Your task to perform on an android device: Search for Italian restaurants on Maps Image 0: 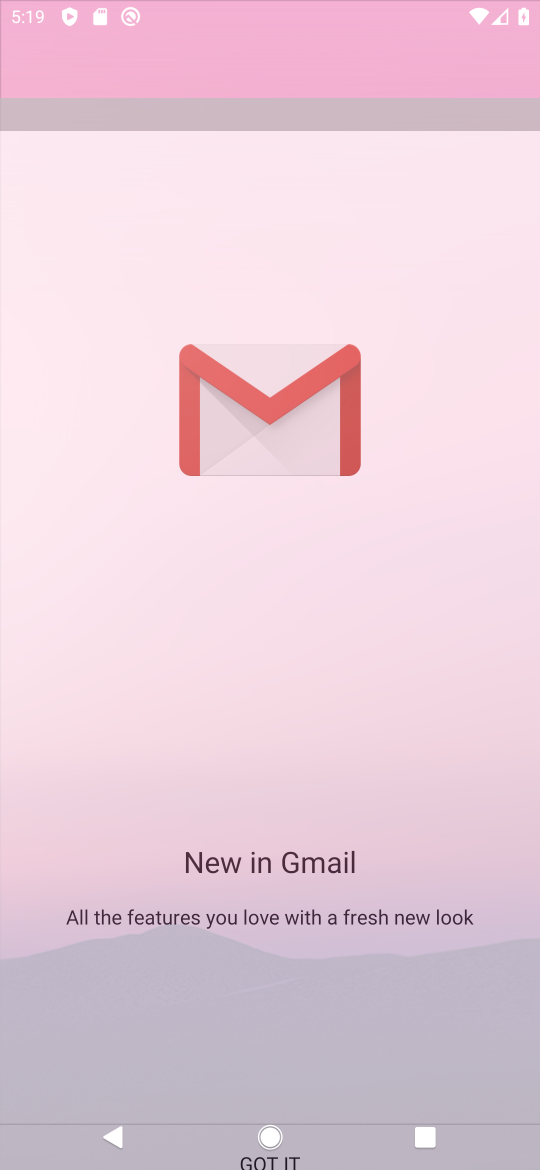
Step 0: press home button
Your task to perform on an android device: Search for Italian restaurants on Maps Image 1: 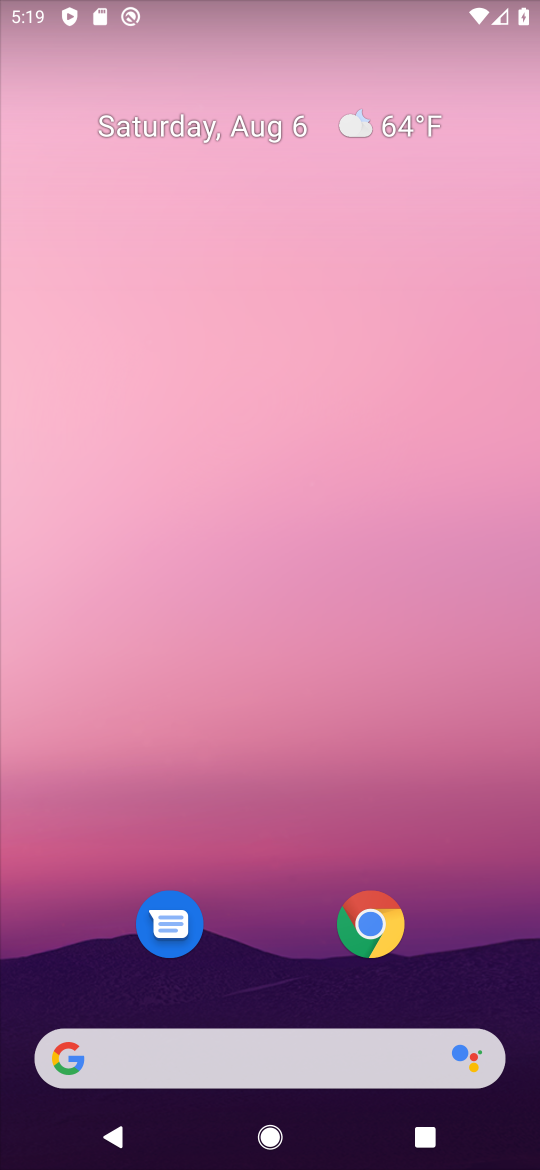
Step 1: drag from (282, 867) to (321, 140)
Your task to perform on an android device: Search for Italian restaurants on Maps Image 2: 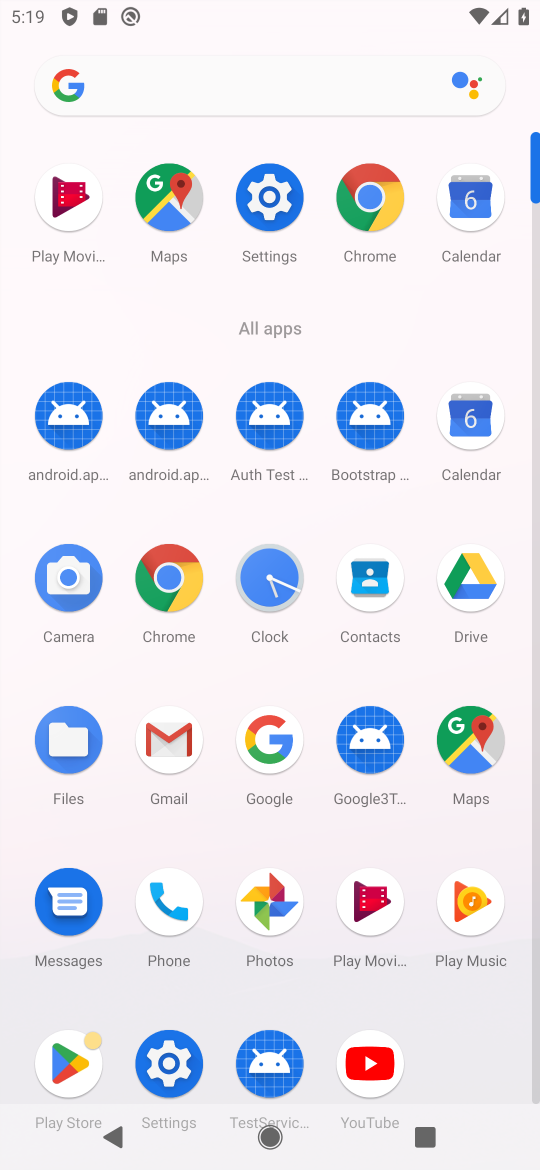
Step 2: click (172, 196)
Your task to perform on an android device: Search for Italian restaurants on Maps Image 3: 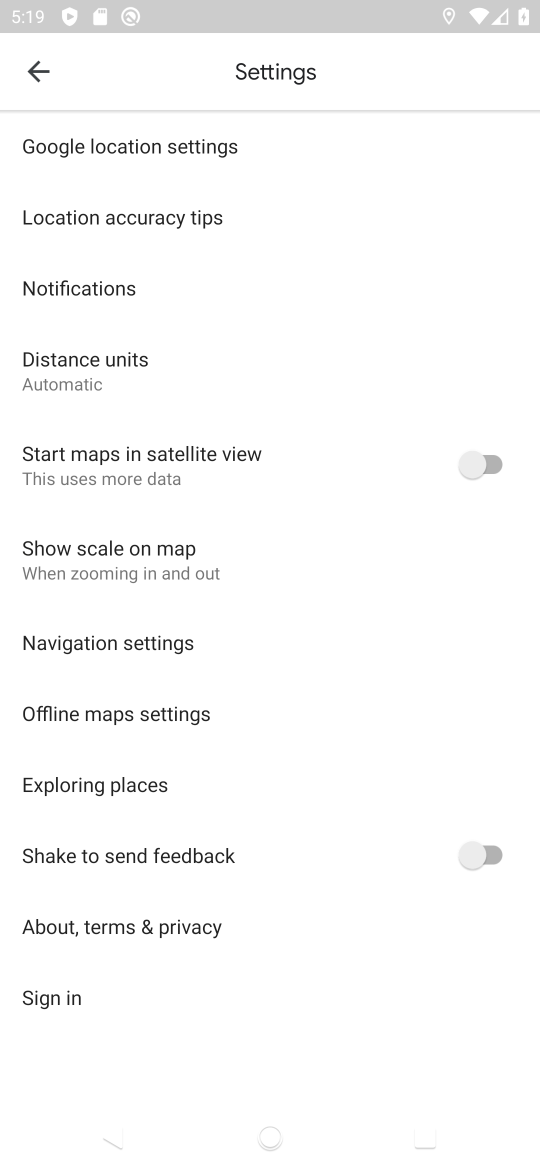
Step 3: click (35, 68)
Your task to perform on an android device: Search for Italian restaurants on Maps Image 4: 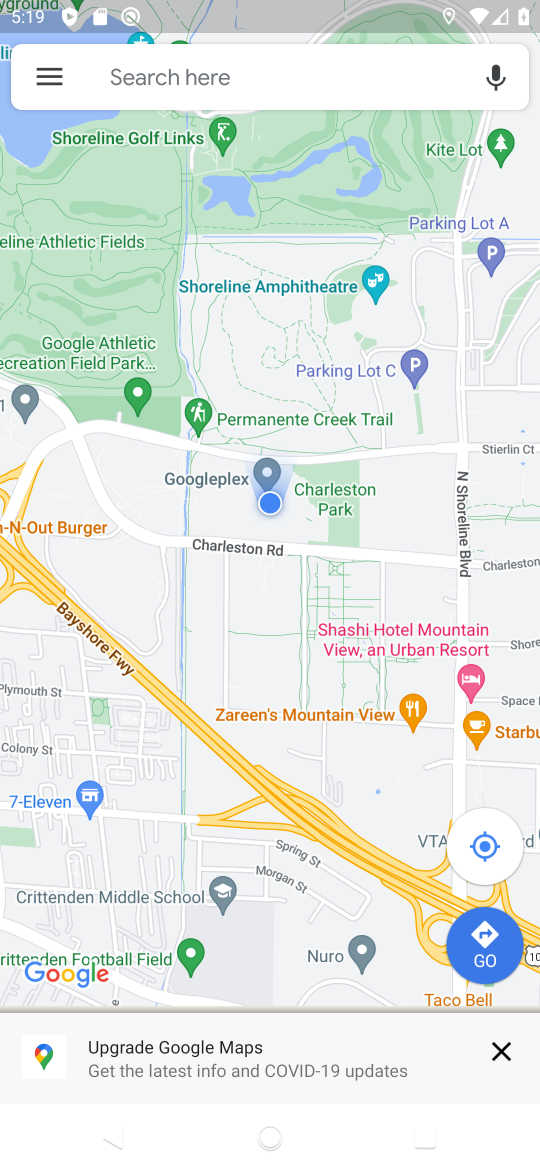
Step 4: click (194, 75)
Your task to perform on an android device: Search for Italian restaurants on Maps Image 5: 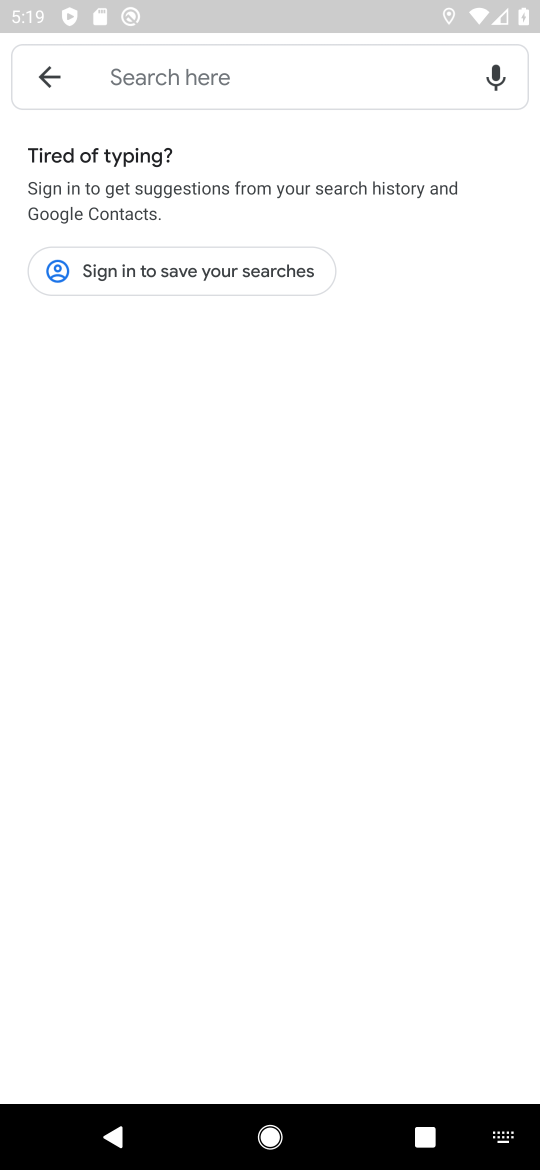
Step 5: type "italian"
Your task to perform on an android device: Search for Italian restaurants on Maps Image 6: 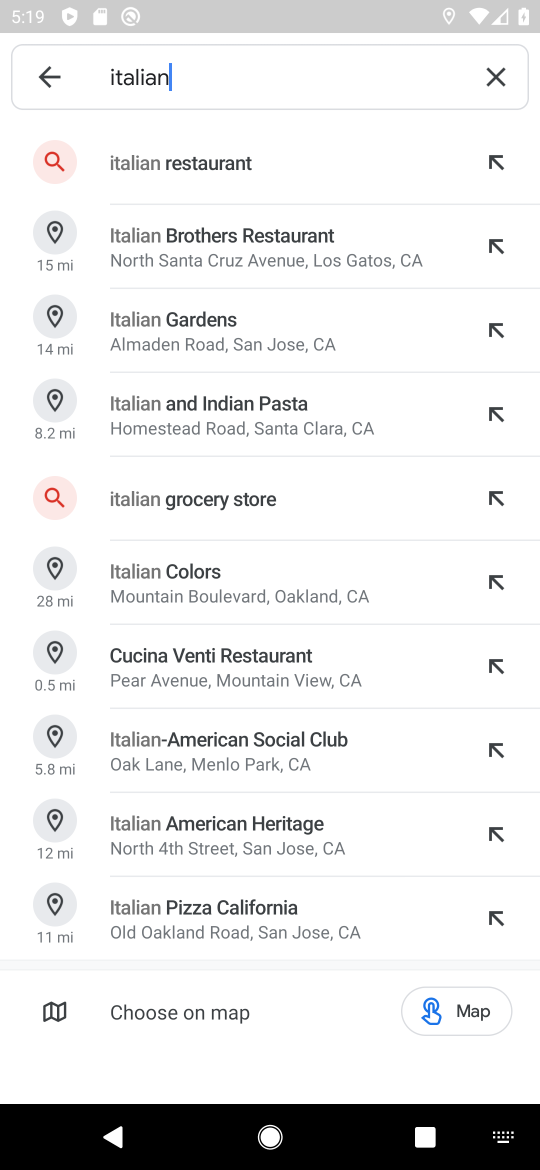
Step 6: click (186, 155)
Your task to perform on an android device: Search for Italian restaurants on Maps Image 7: 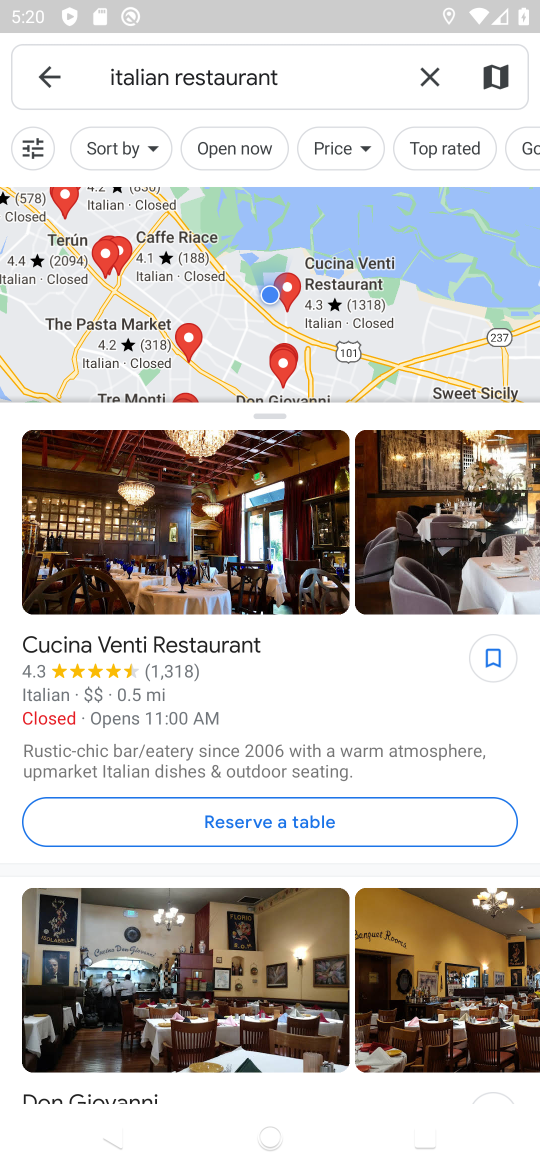
Step 7: task complete